Your task to perform on an android device: set the timer Image 0: 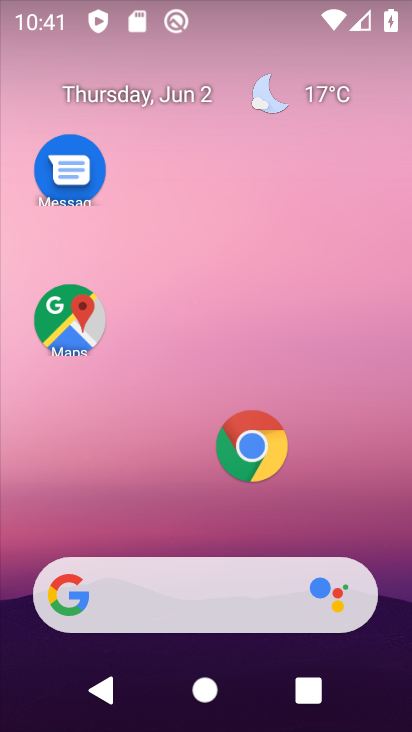
Step 0: press home button
Your task to perform on an android device: set the timer Image 1: 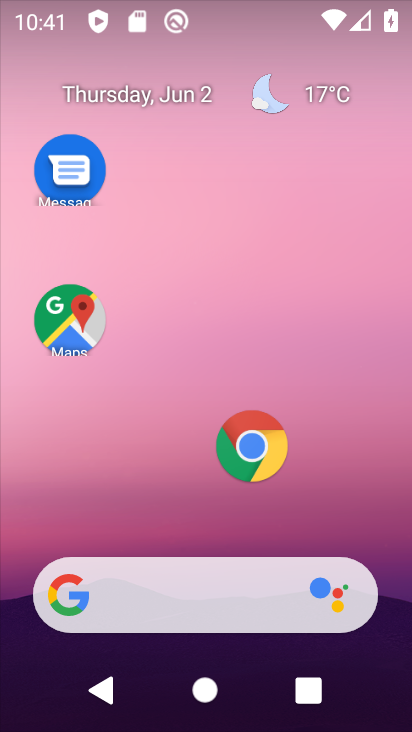
Step 1: drag from (347, 505) to (242, 92)
Your task to perform on an android device: set the timer Image 2: 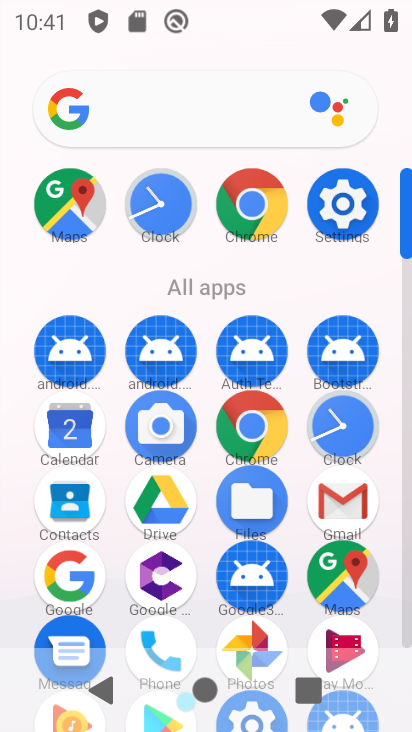
Step 2: click (357, 200)
Your task to perform on an android device: set the timer Image 3: 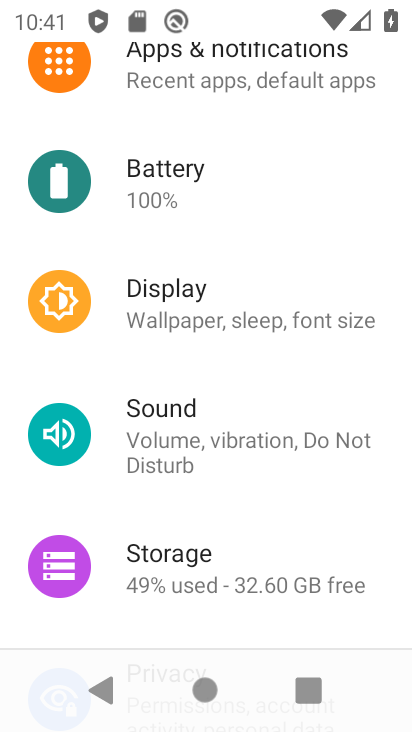
Step 3: press home button
Your task to perform on an android device: set the timer Image 4: 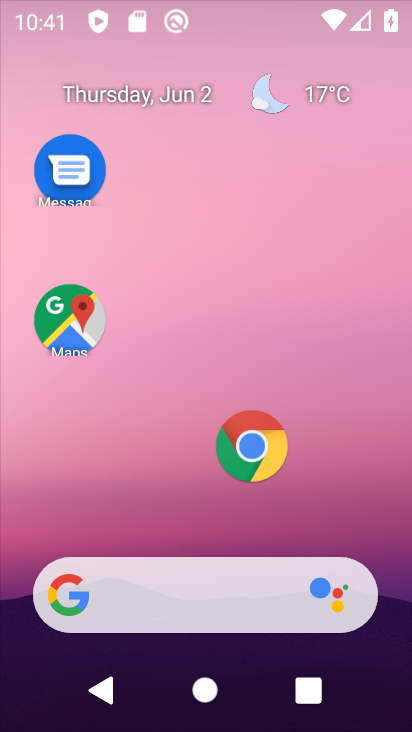
Step 4: drag from (313, 541) to (296, 70)
Your task to perform on an android device: set the timer Image 5: 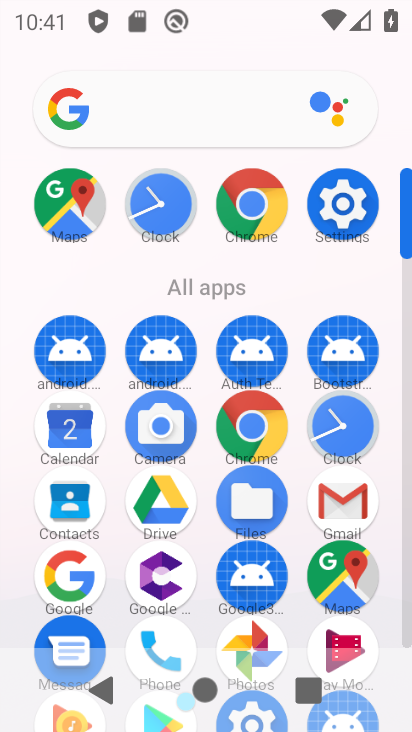
Step 5: click (349, 423)
Your task to perform on an android device: set the timer Image 6: 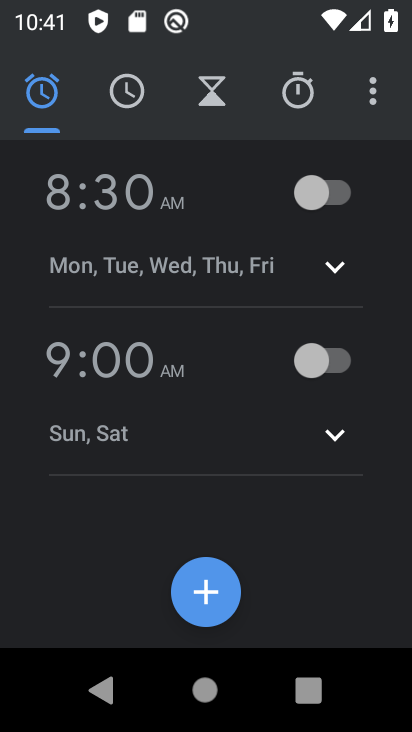
Step 6: click (207, 90)
Your task to perform on an android device: set the timer Image 7: 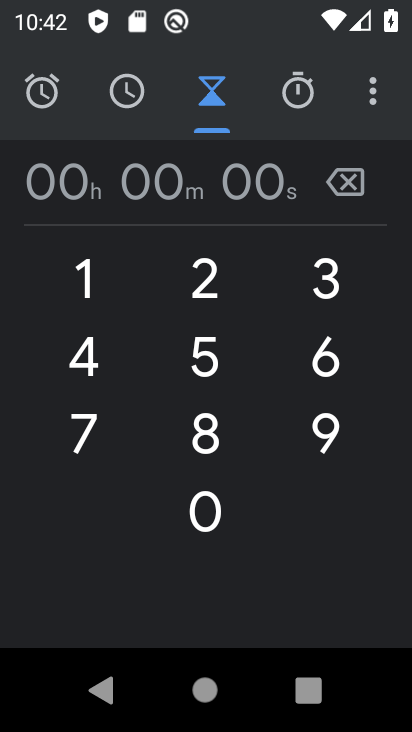
Step 7: click (196, 534)
Your task to perform on an android device: set the timer Image 8: 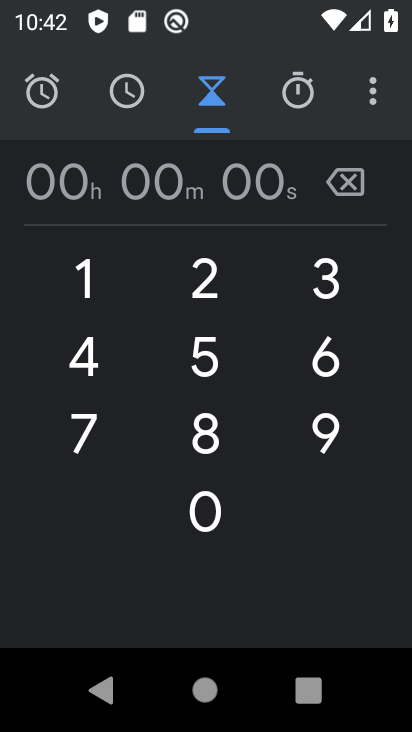
Step 8: click (228, 430)
Your task to perform on an android device: set the timer Image 9: 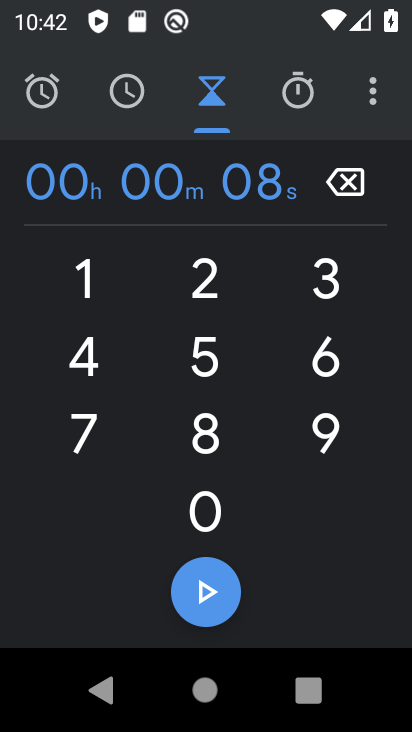
Step 9: click (204, 597)
Your task to perform on an android device: set the timer Image 10: 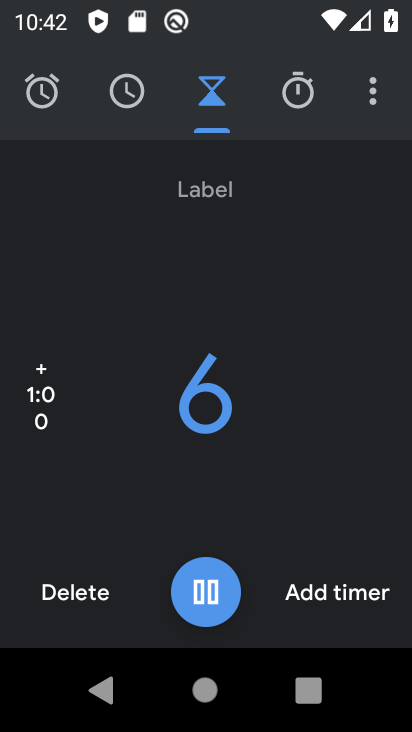
Step 10: task complete